Your task to perform on an android device: Open Android settings Image 0: 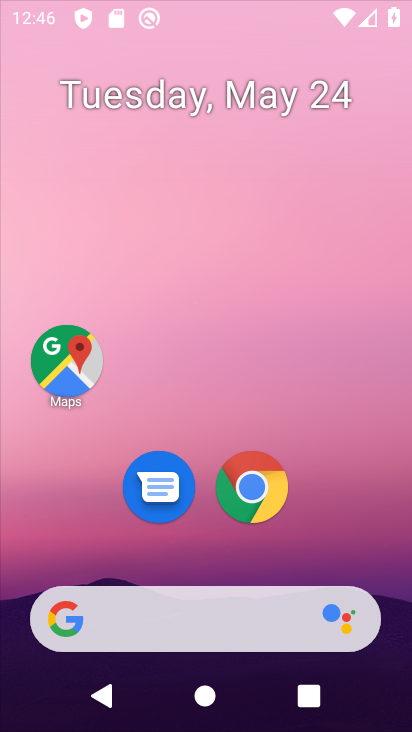
Step 0: click (234, 129)
Your task to perform on an android device: Open Android settings Image 1: 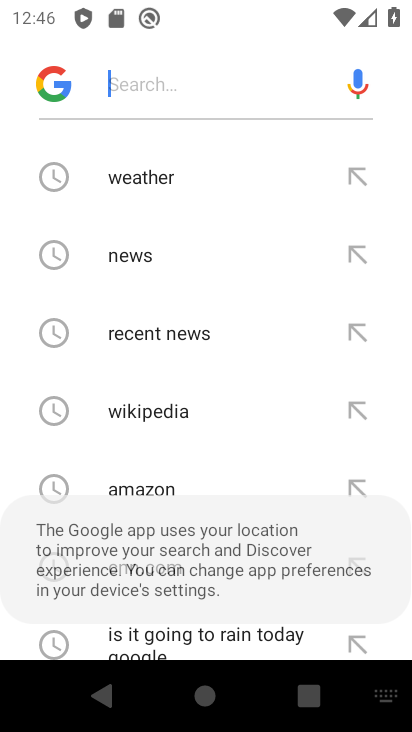
Step 1: press home button
Your task to perform on an android device: Open Android settings Image 2: 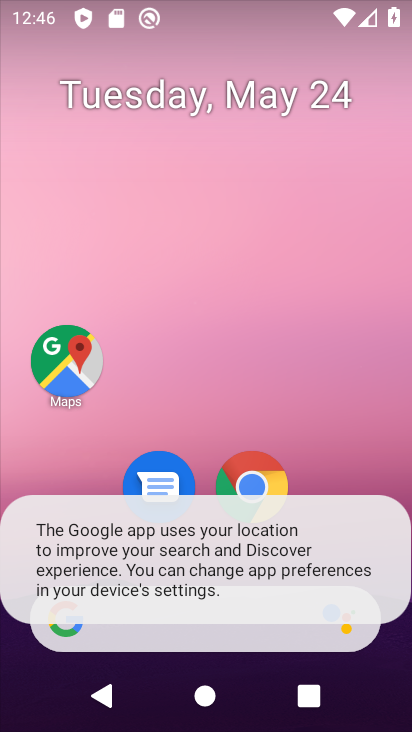
Step 2: drag from (220, 667) to (222, 119)
Your task to perform on an android device: Open Android settings Image 3: 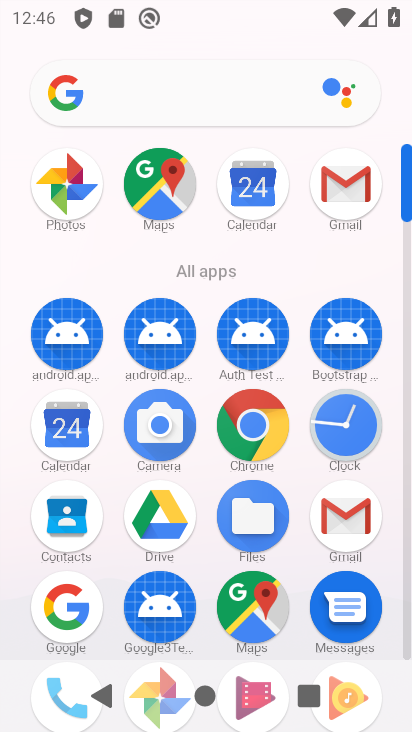
Step 3: drag from (106, 629) to (107, 259)
Your task to perform on an android device: Open Android settings Image 4: 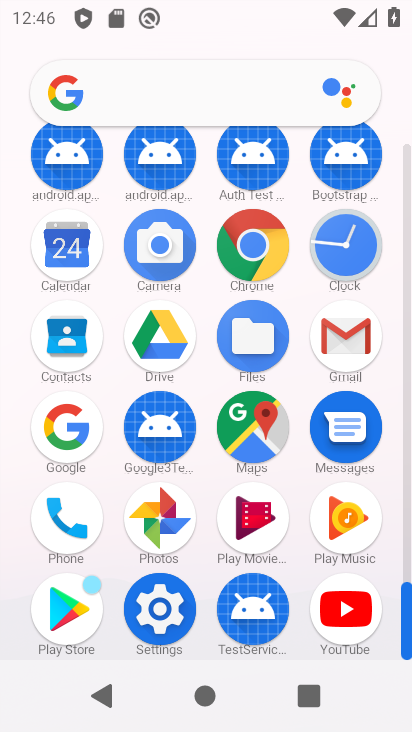
Step 4: click (174, 614)
Your task to perform on an android device: Open Android settings Image 5: 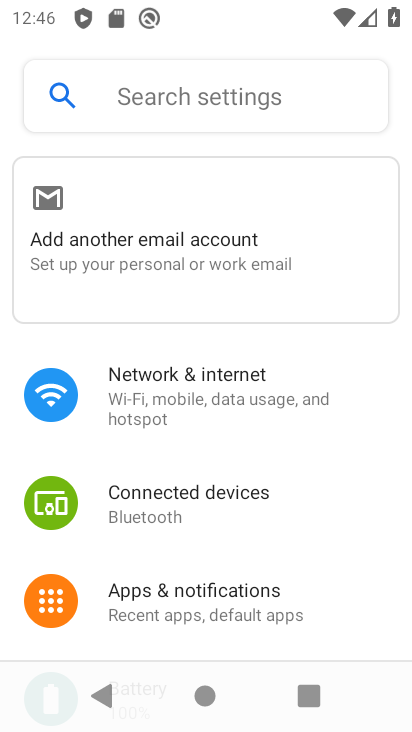
Step 5: task complete